Your task to perform on an android device: Show me recent news Image 0: 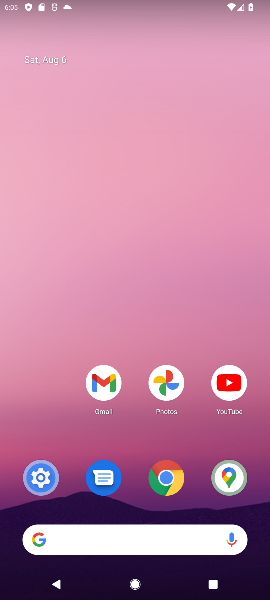
Step 0: press home button
Your task to perform on an android device: Show me recent news Image 1: 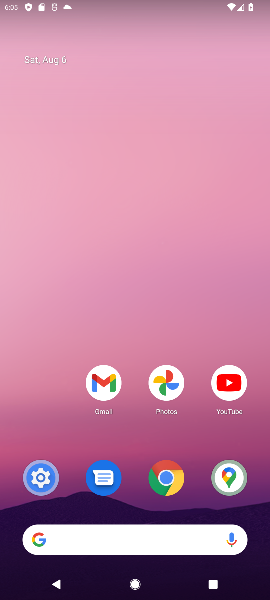
Step 1: click (35, 541)
Your task to perform on an android device: Show me recent news Image 2: 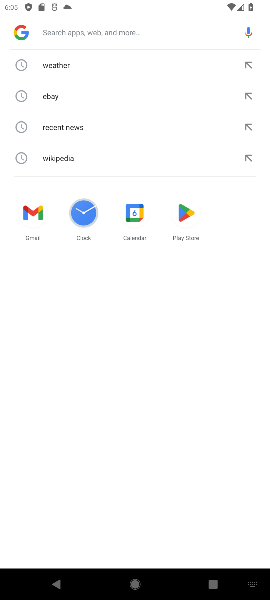
Step 2: click (60, 125)
Your task to perform on an android device: Show me recent news Image 3: 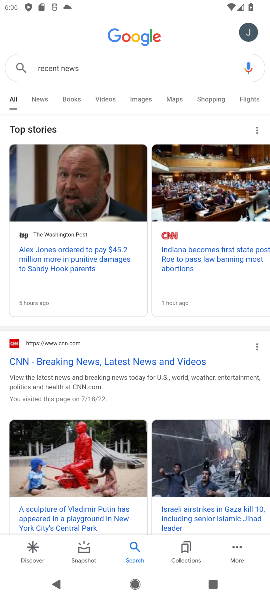
Step 3: task complete